Your task to perform on an android device: Open the web browser Image 0: 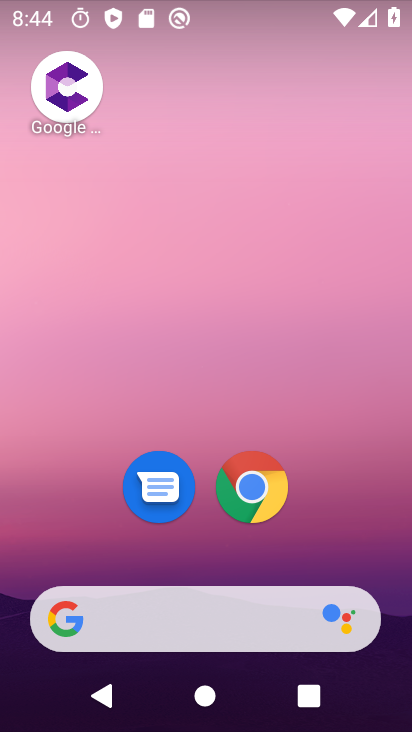
Step 0: click (329, 545)
Your task to perform on an android device: Open the web browser Image 1: 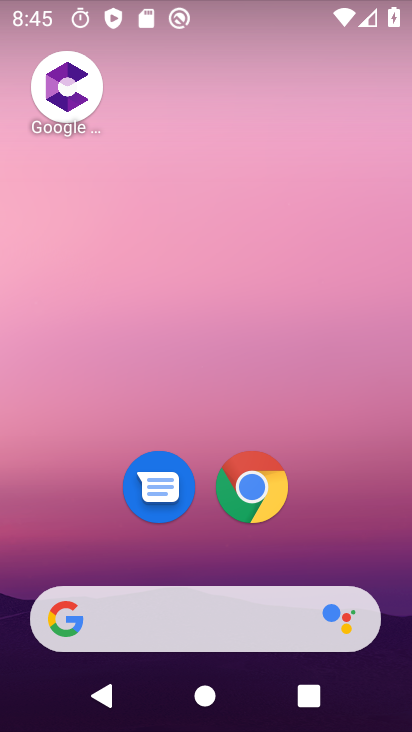
Step 1: click (329, 545)
Your task to perform on an android device: Open the web browser Image 2: 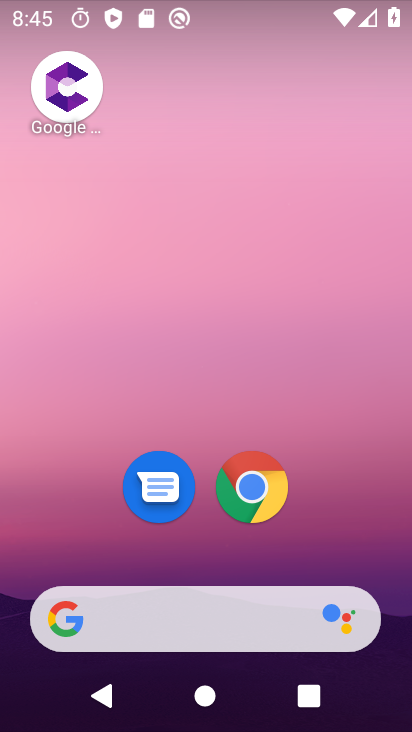
Step 2: click (255, 461)
Your task to perform on an android device: Open the web browser Image 3: 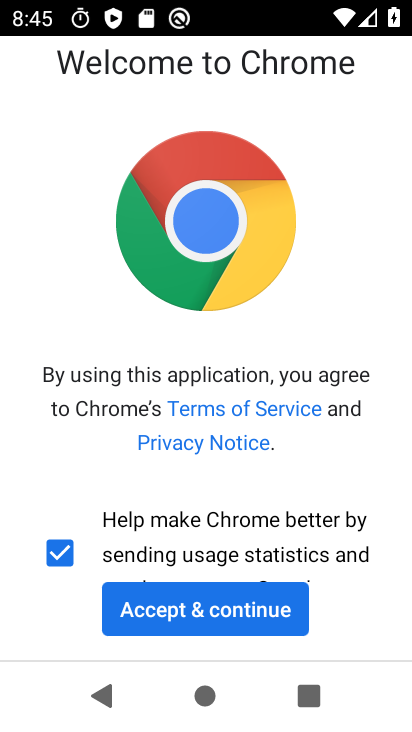
Step 3: click (188, 590)
Your task to perform on an android device: Open the web browser Image 4: 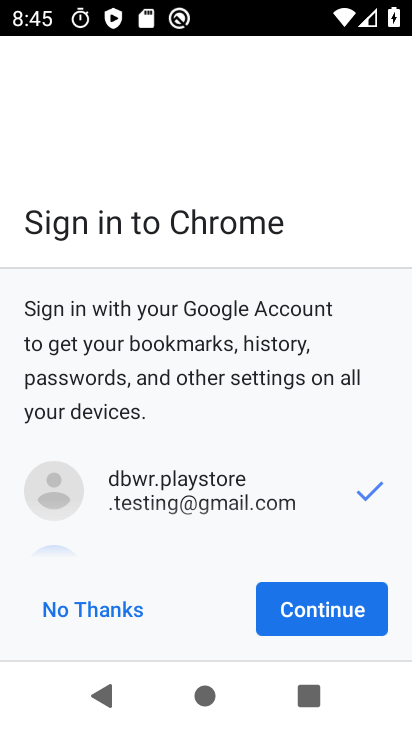
Step 4: click (310, 595)
Your task to perform on an android device: Open the web browser Image 5: 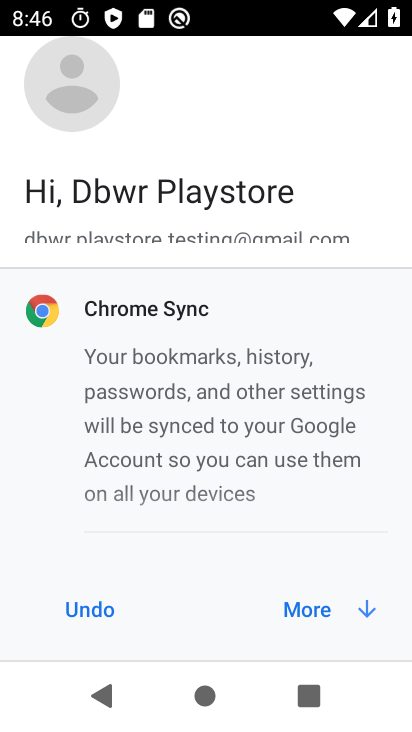
Step 5: click (323, 608)
Your task to perform on an android device: Open the web browser Image 6: 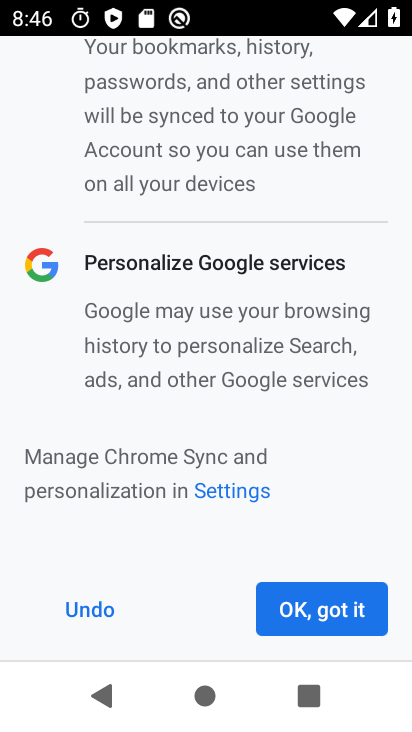
Step 6: click (323, 608)
Your task to perform on an android device: Open the web browser Image 7: 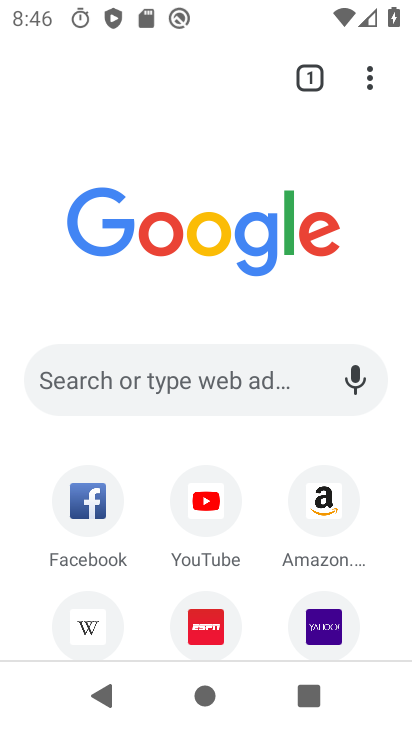
Step 7: task complete